Your task to perform on an android device: Search for razer blade on costco, select the first entry, add it to the cart, then select checkout. Image 0: 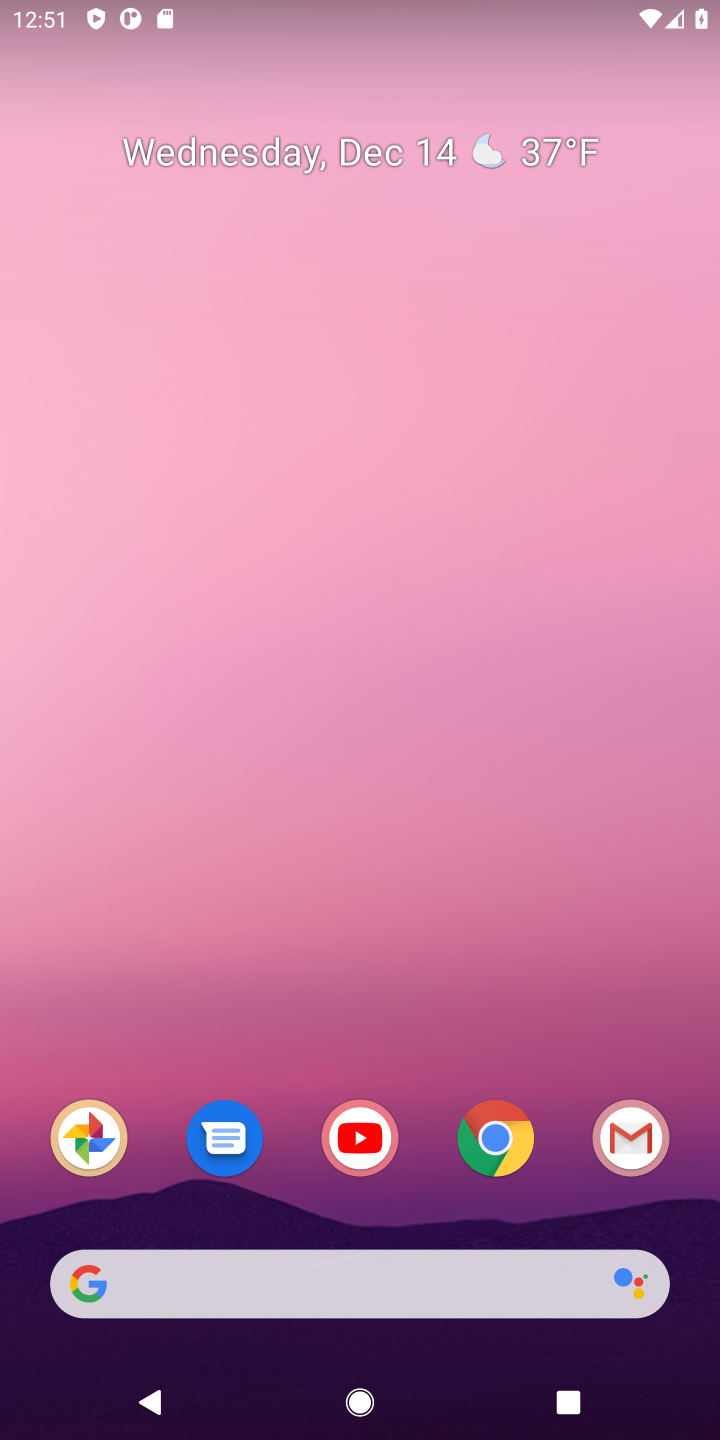
Step 0: click (492, 1146)
Your task to perform on an android device: Search for razer blade on costco, select the first entry, add it to the cart, then select checkout. Image 1: 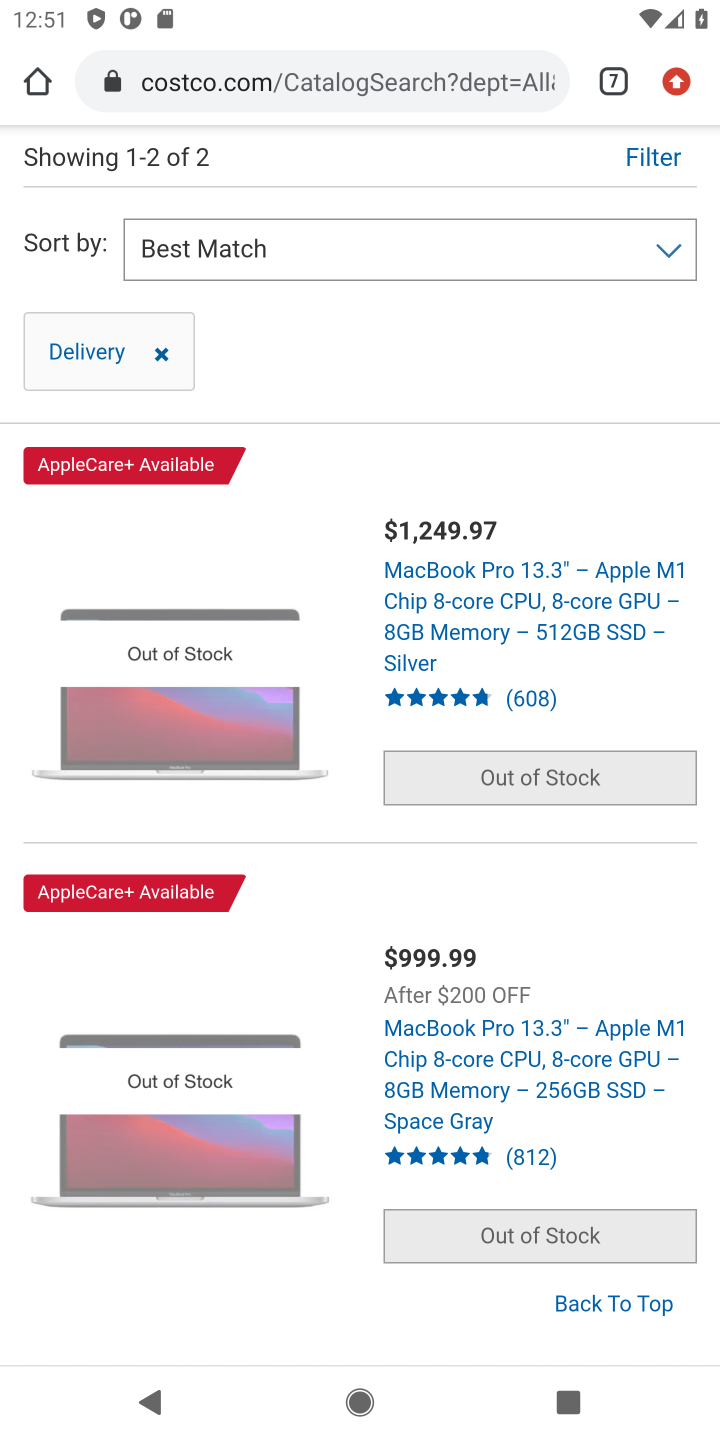
Step 1: drag from (465, 372) to (457, 1028)
Your task to perform on an android device: Search for razer blade on costco, select the first entry, add it to the cart, then select checkout. Image 2: 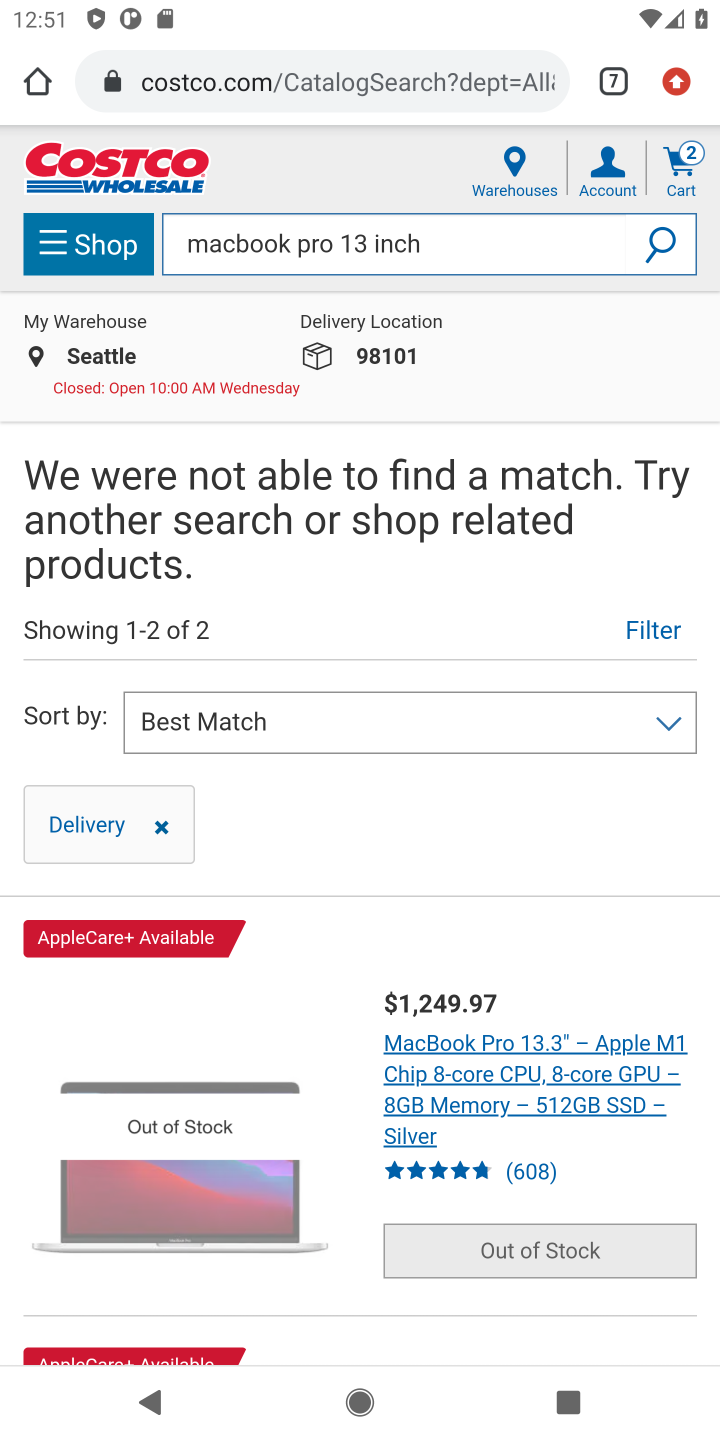
Step 2: click (512, 244)
Your task to perform on an android device: Search for razer blade on costco, select the first entry, add it to the cart, then select checkout. Image 3: 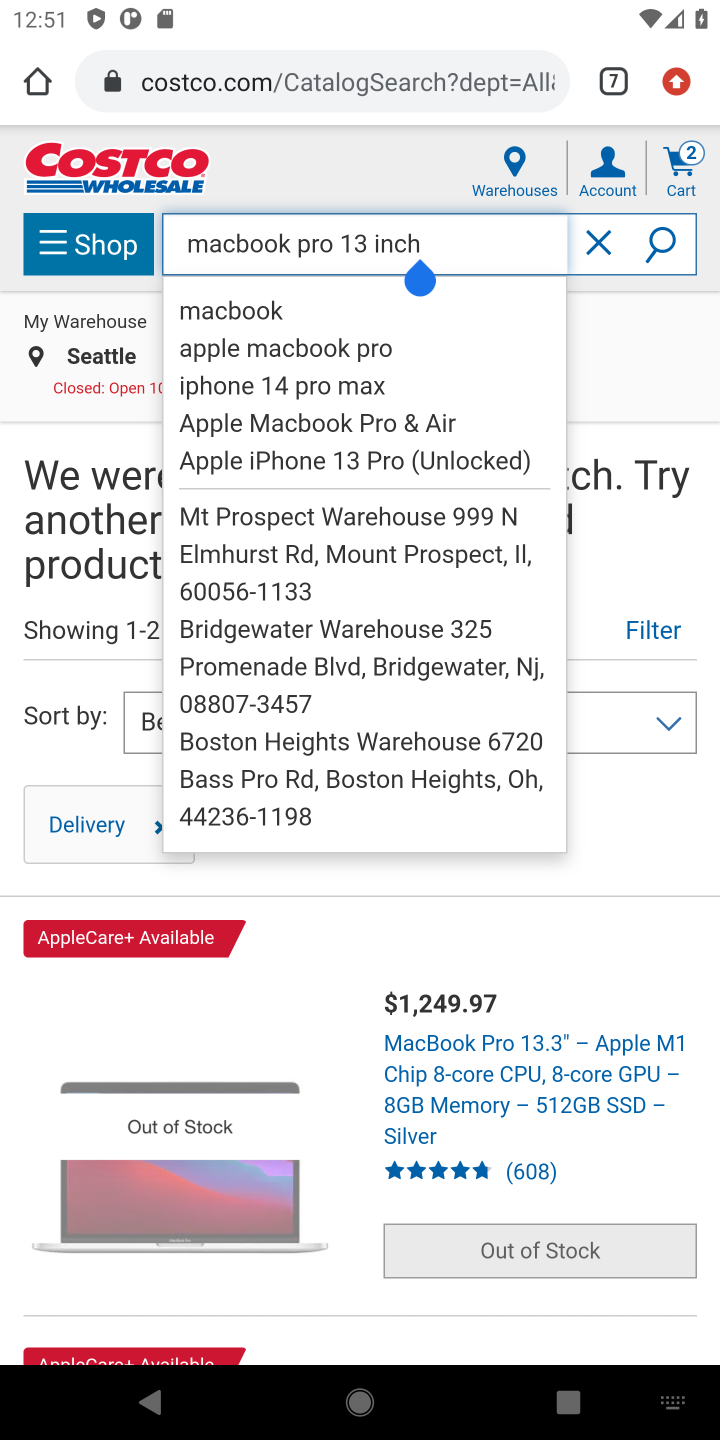
Step 3: click (600, 244)
Your task to perform on an android device: Search for razer blade on costco, select the first entry, add it to the cart, then select checkout. Image 4: 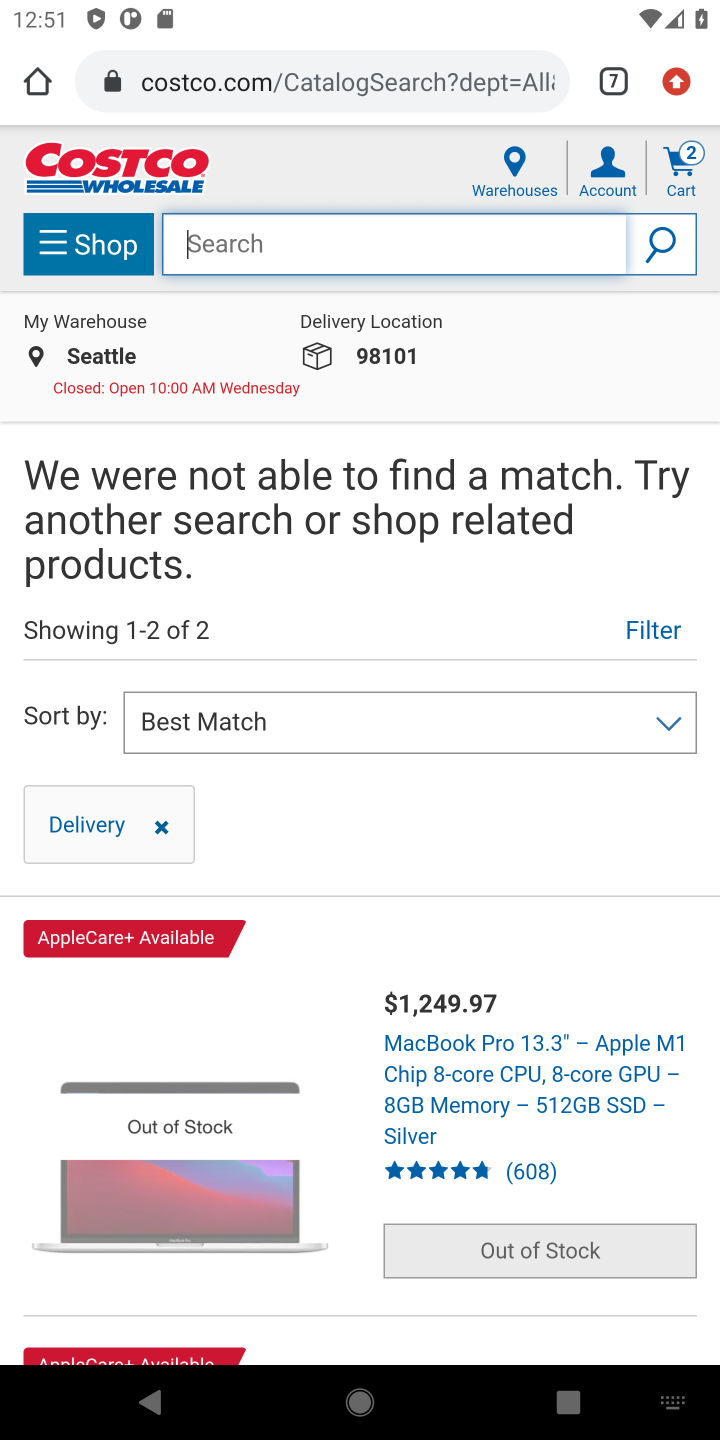
Step 4: type "razer blade"
Your task to perform on an android device: Search for razer blade on costco, select the first entry, add it to the cart, then select checkout. Image 5: 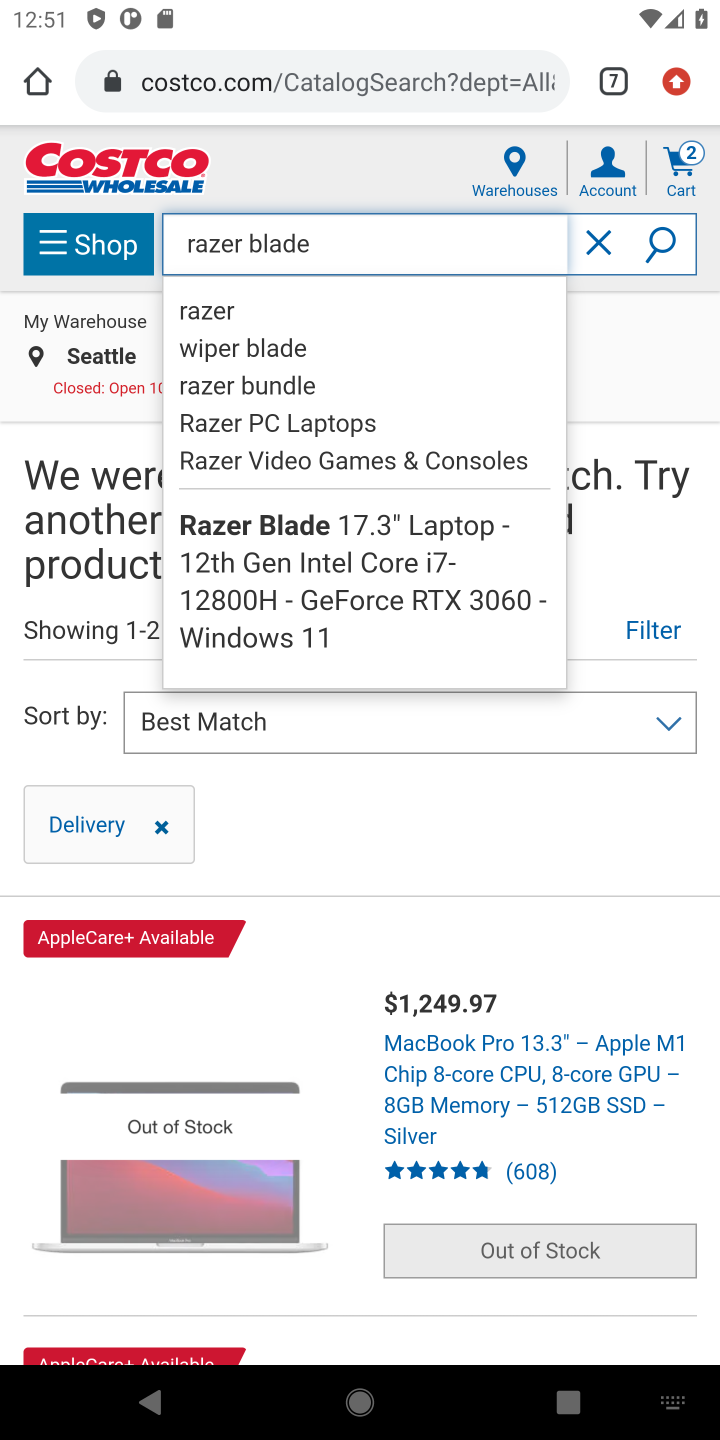
Step 5: click (653, 235)
Your task to perform on an android device: Search for razer blade on costco, select the first entry, add it to the cart, then select checkout. Image 6: 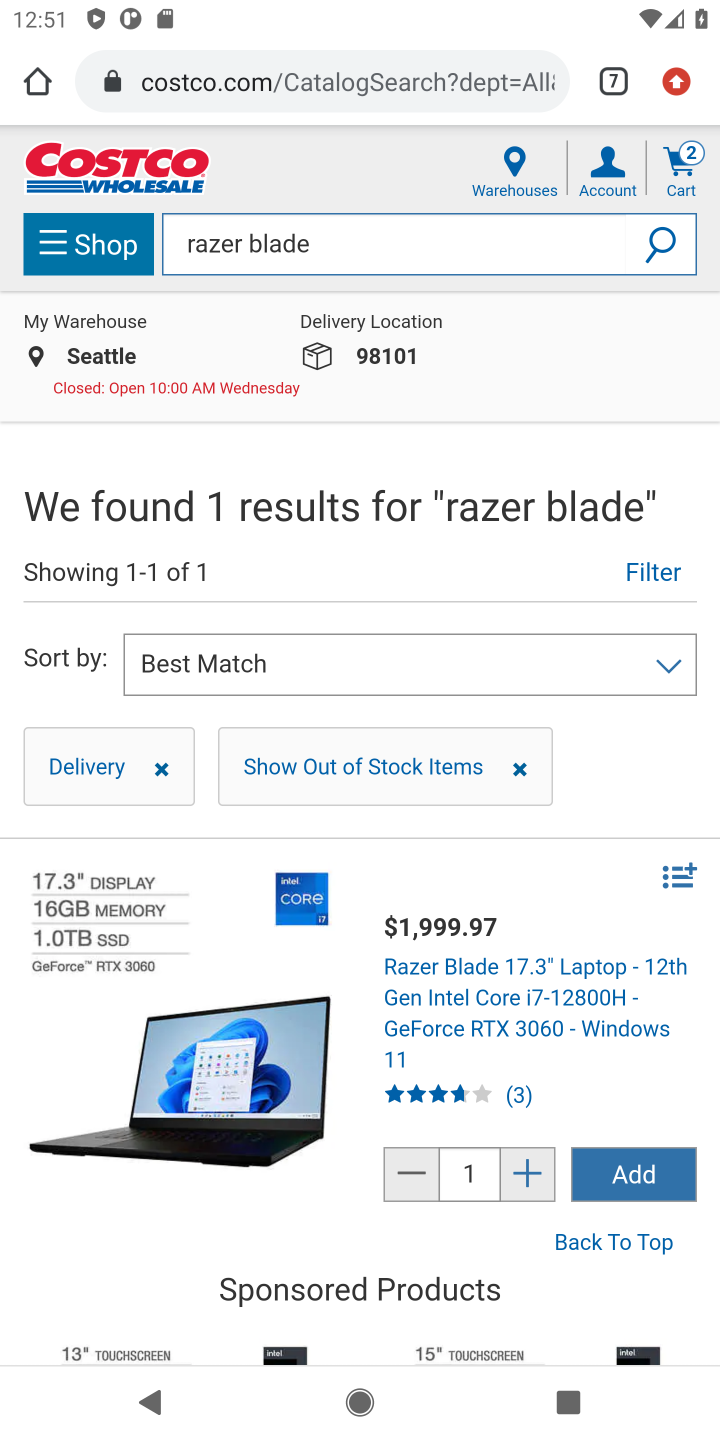
Step 6: click (631, 1169)
Your task to perform on an android device: Search for razer blade on costco, select the first entry, add it to the cart, then select checkout. Image 7: 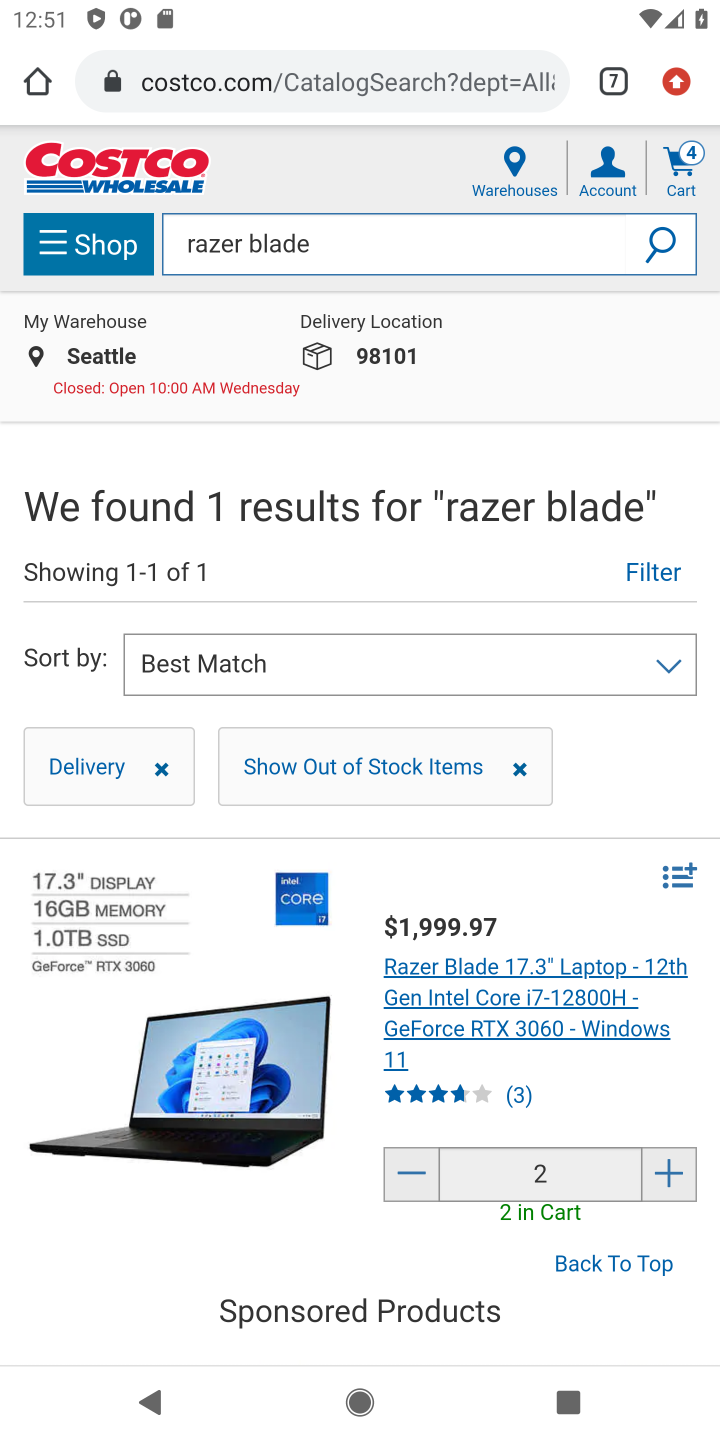
Step 7: click (697, 169)
Your task to perform on an android device: Search for razer blade on costco, select the first entry, add it to the cart, then select checkout. Image 8: 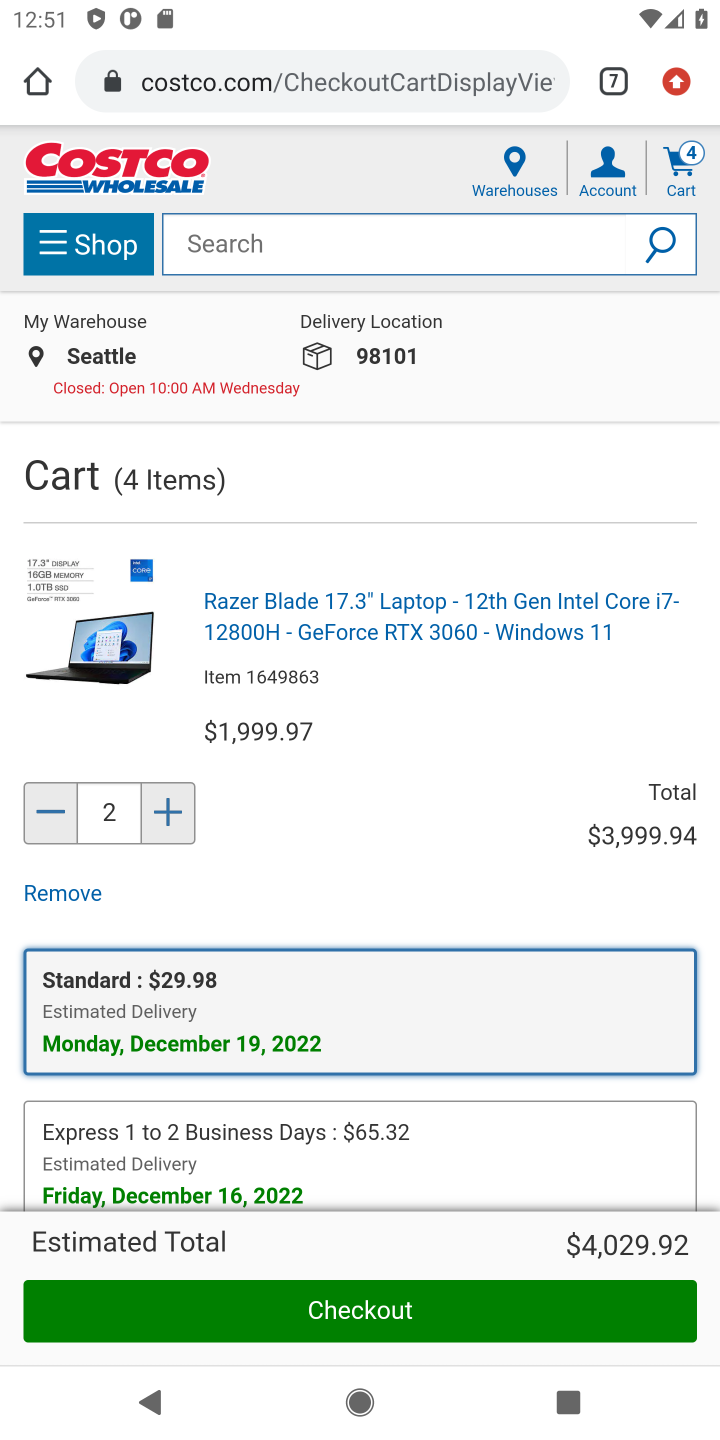
Step 8: click (392, 1321)
Your task to perform on an android device: Search for razer blade on costco, select the first entry, add it to the cart, then select checkout. Image 9: 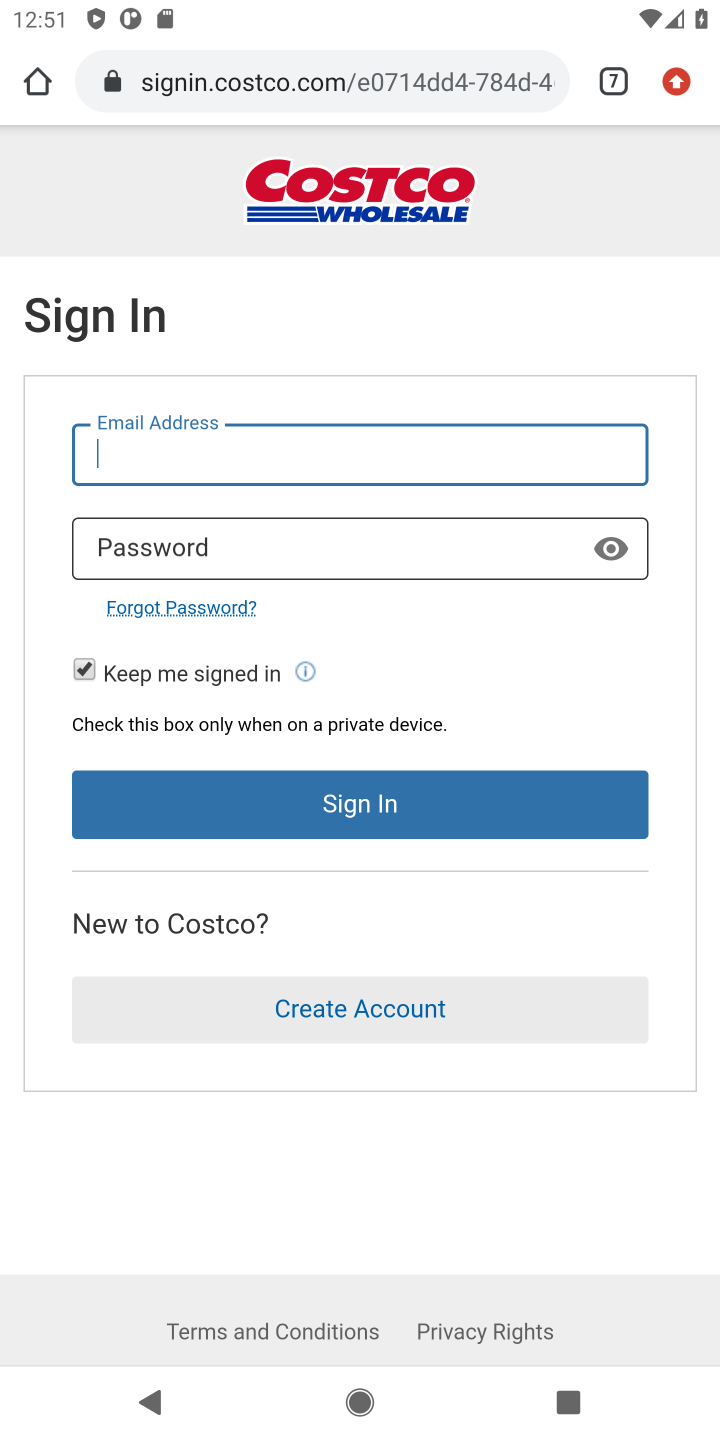
Step 9: task complete